Your task to perform on an android device: Go to location settings Image 0: 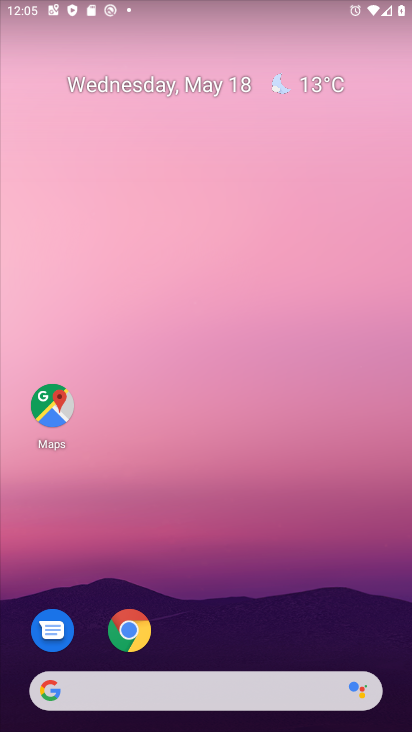
Step 0: drag from (231, 718) to (234, 140)
Your task to perform on an android device: Go to location settings Image 1: 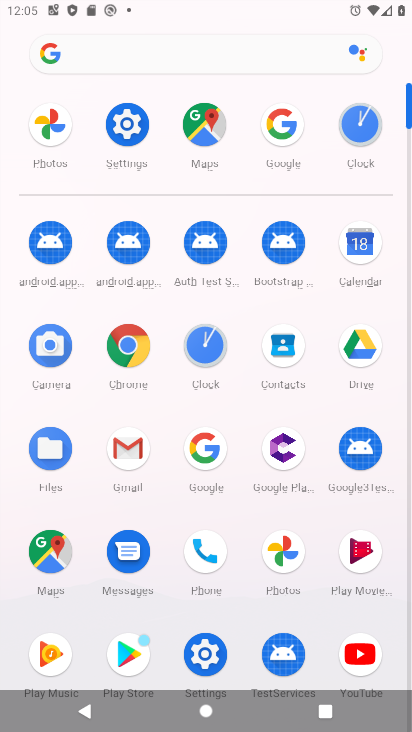
Step 1: click (122, 124)
Your task to perform on an android device: Go to location settings Image 2: 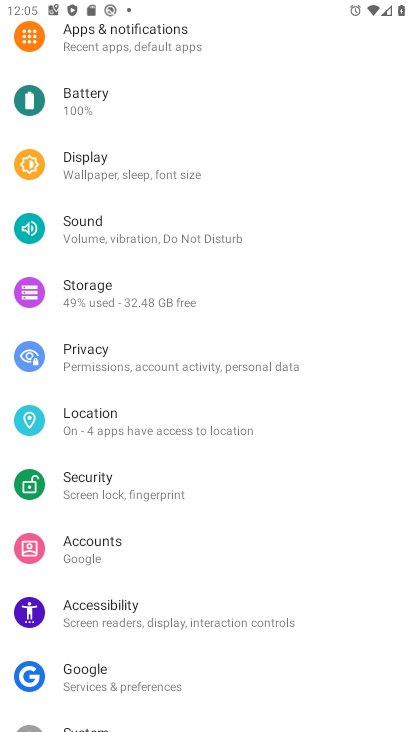
Step 2: click (115, 422)
Your task to perform on an android device: Go to location settings Image 3: 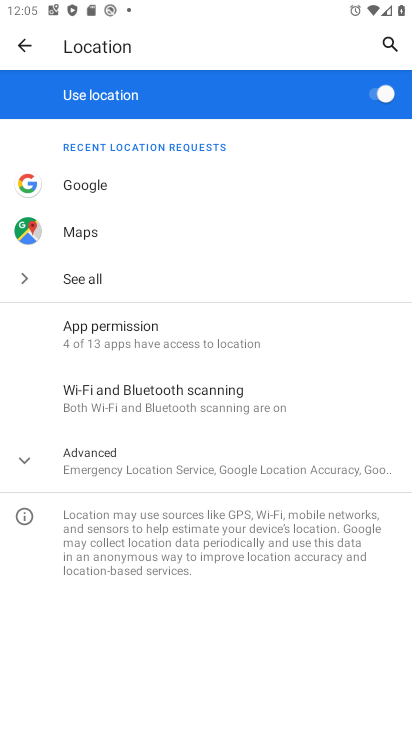
Step 3: task complete